Your task to perform on an android device: check data usage Image 0: 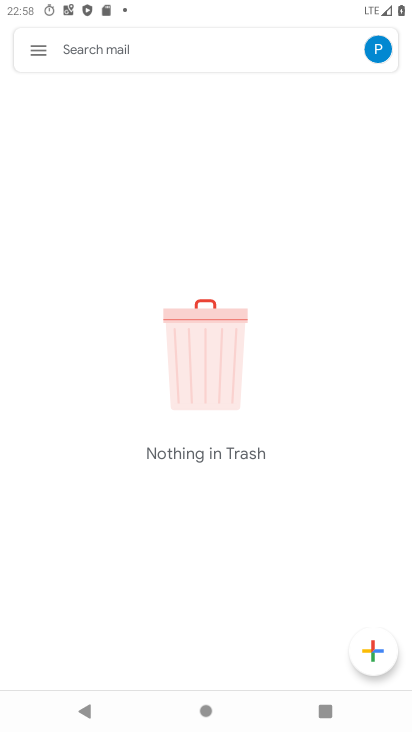
Step 0: press home button
Your task to perform on an android device: check data usage Image 1: 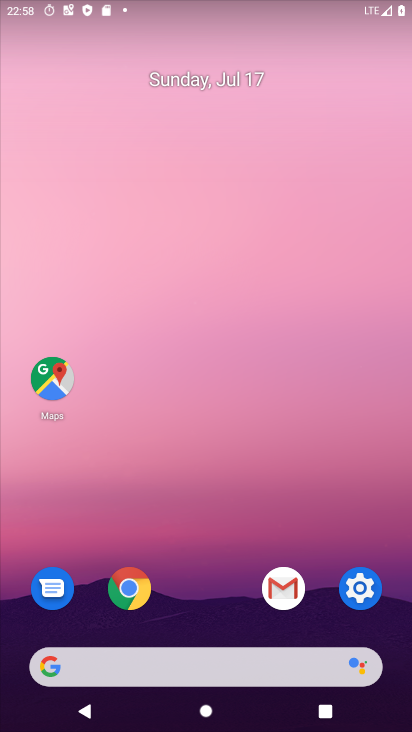
Step 1: click (367, 585)
Your task to perform on an android device: check data usage Image 2: 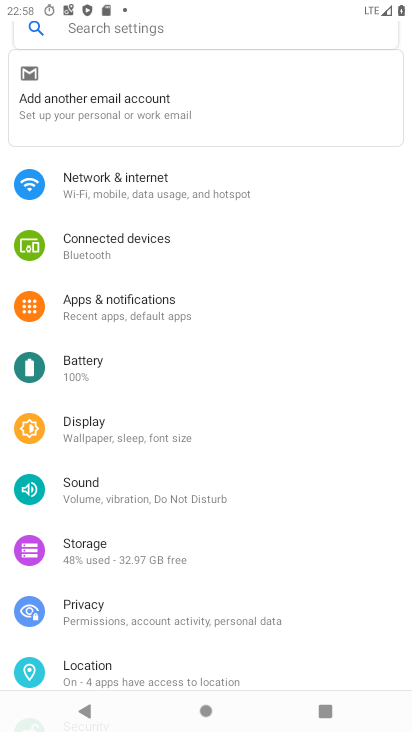
Step 2: click (109, 43)
Your task to perform on an android device: check data usage Image 3: 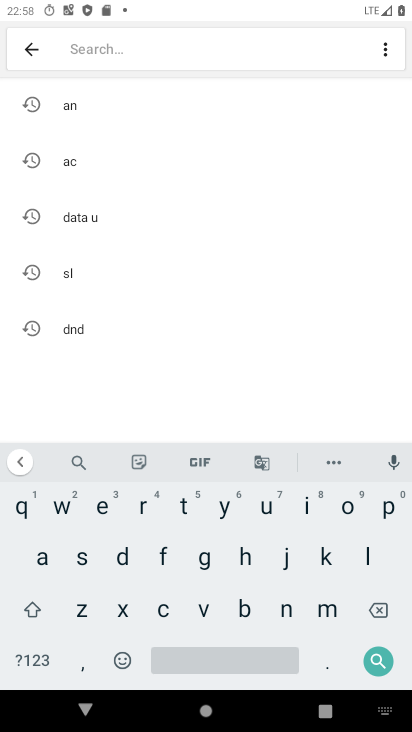
Step 3: click (117, 550)
Your task to perform on an android device: check data usage Image 4: 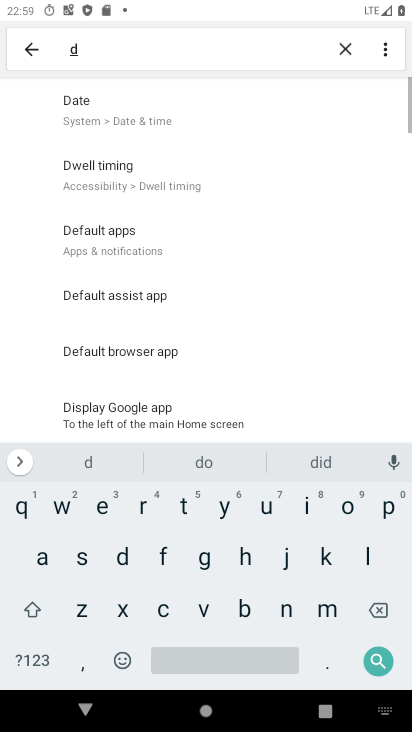
Step 4: click (348, 50)
Your task to perform on an android device: check data usage Image 5: 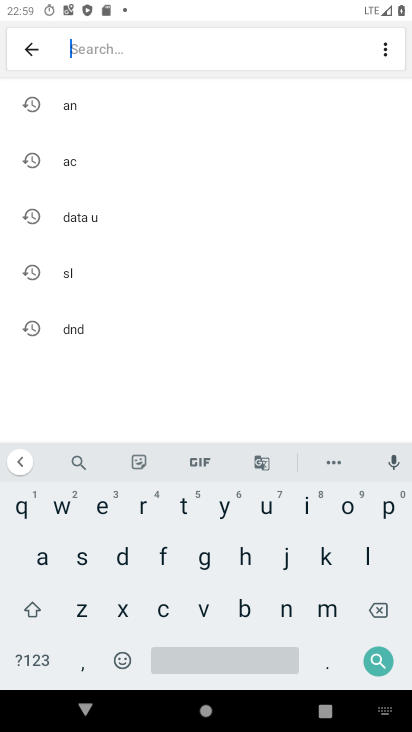
Step 5: click (100, 223)
Your task to perform on an android device: check data usage Image 6: 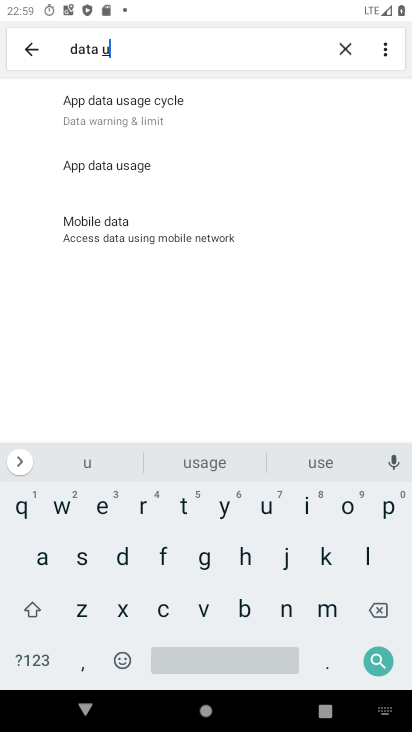
Step 6: click (141, 156)
Your task to perform on an android device: check data usage Image 7: 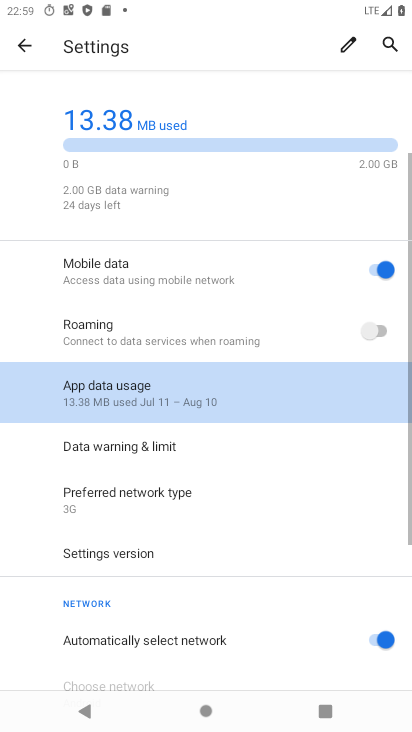
Step 7: click (229, 389)
Your task to perform on an android device: check data usage Image 8: 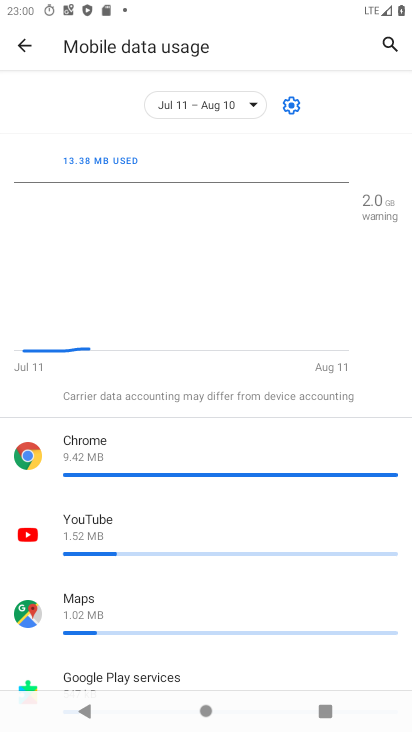
Step 8: task complete